Your task to perform on an android device: turn off javascript in the chrome app Image 0: 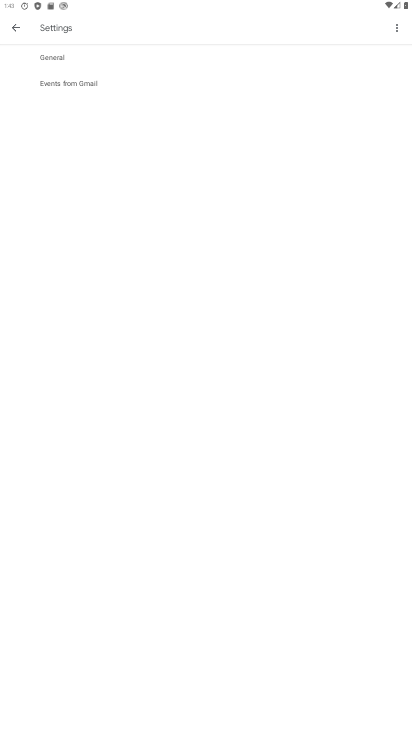
Step 0: press home button
Your task to perform on an android device: turn off javascript in the chrome app Image 1: 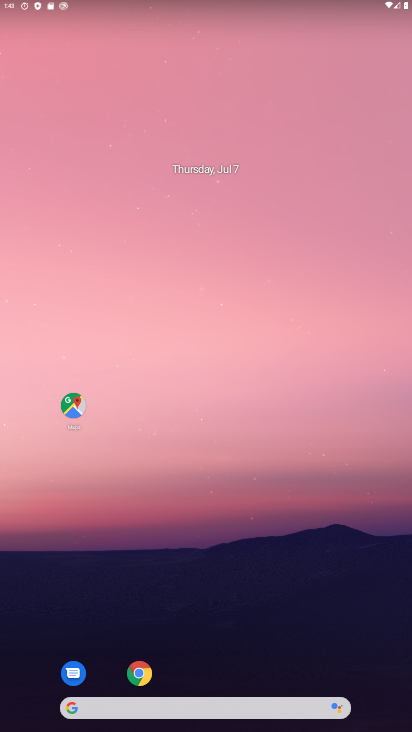
Step 1: drag from (213, 697) to (324, 183)
Your task to perform on an android device: turn off javascript in the chrome app Image 2: 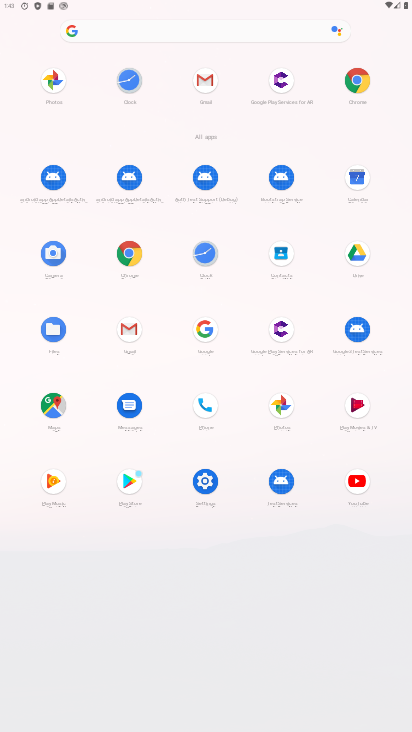
Step 2: click (112, 246)
Your task to perform on an android device: turn off javascript in the chrome app Image 3: 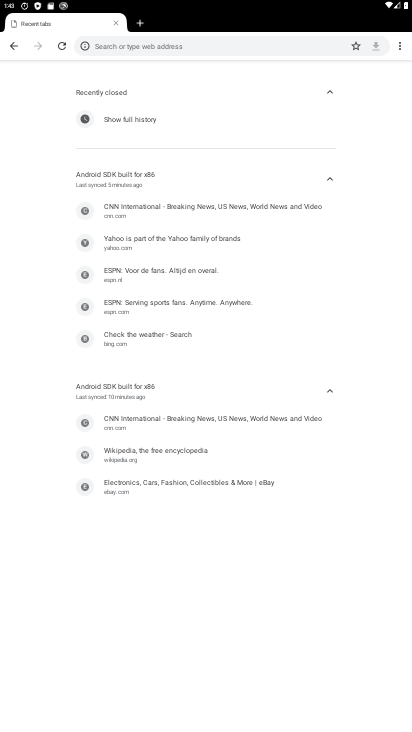
Step 3: drag from (393, 40) to (358, 215)
Your task to perform on an android device: turn off javascript in the chrome app Image 4: 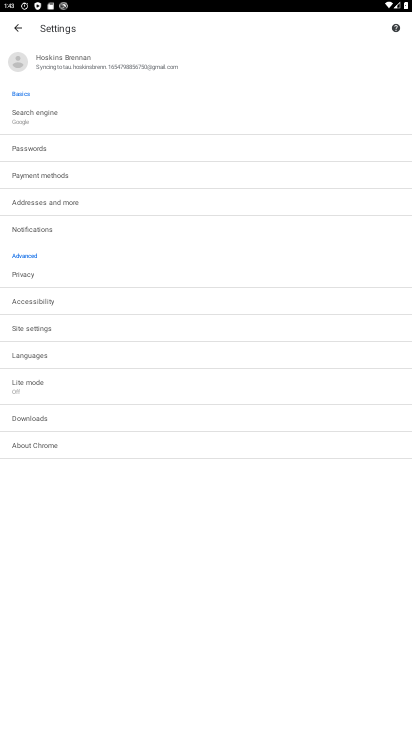
Step 4: click (73, 326)
Your task to perform on an android device: turn off javascript in the chrome app Image 5: 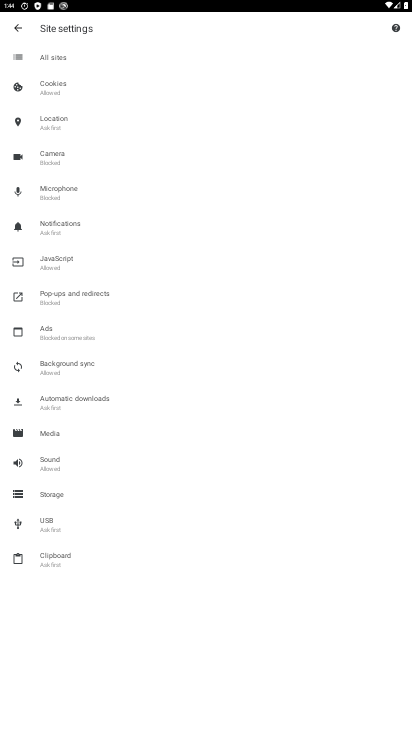
Step 5: click (81, 259)
Your task to perform on an android device: turn off javascript in the chrome app Image 6: 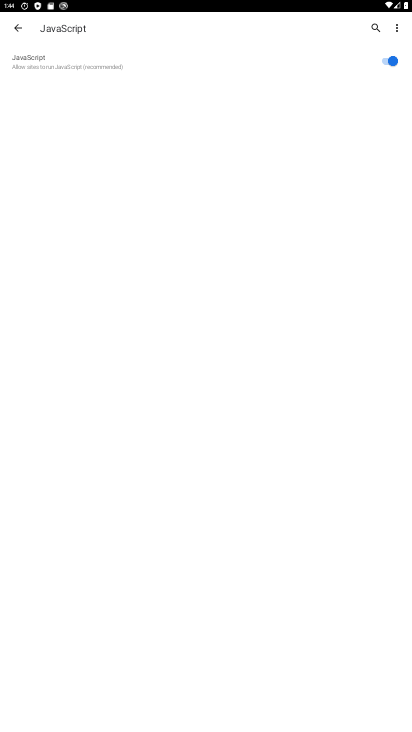
Step 6: click (388, 57)
Your task to perform on an android device: turn off javascript in the chrome app Image 7: 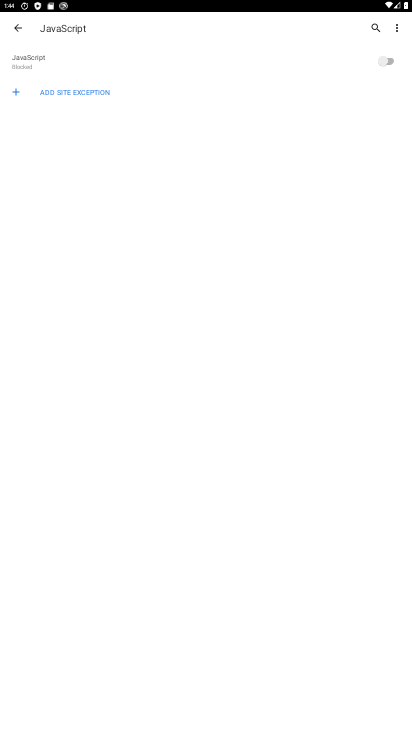
Step 7: task complete